Your task to perform on an android device: delete the emails in spam in the gmail app Image 0: 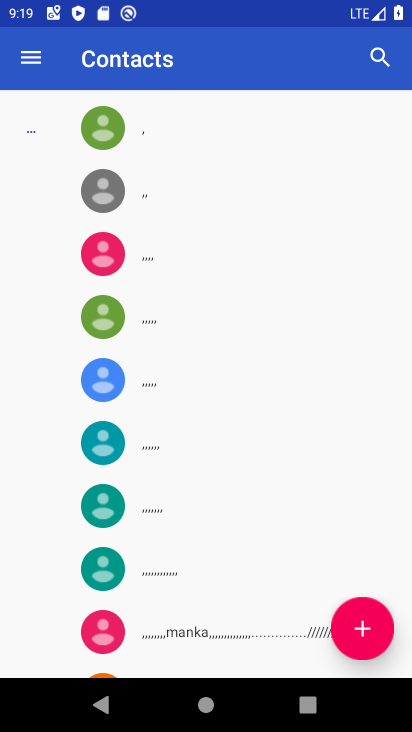
Step 0: press home button
Your task to perform on an android device: delete the emails in spam in the gmail app Image 1: 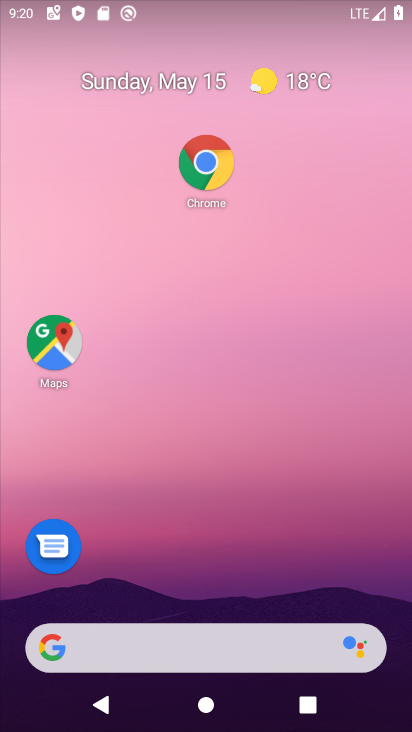
Step 1: drag from (245, 453) to (269, 235)
Your task to perform on an android device: delete the emails in spam in the gmail app Image 2: 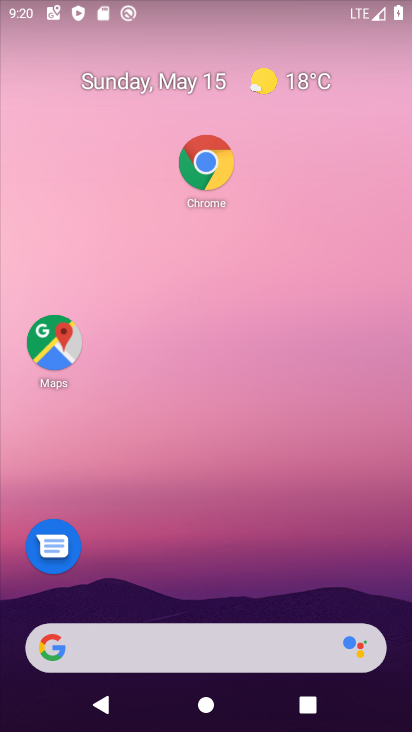
Step 2: drag from (251, 569) to (249, 195)
Your task to perform on an android device: delete the emails in spam in the gmail app Image 3: 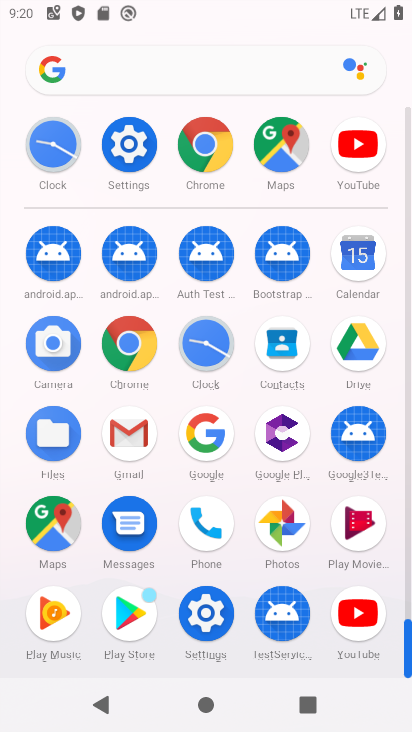
Step 3: click (121, 417)
Your task to perform on an android device: delete the emails in spam in the gmail app Image 4: 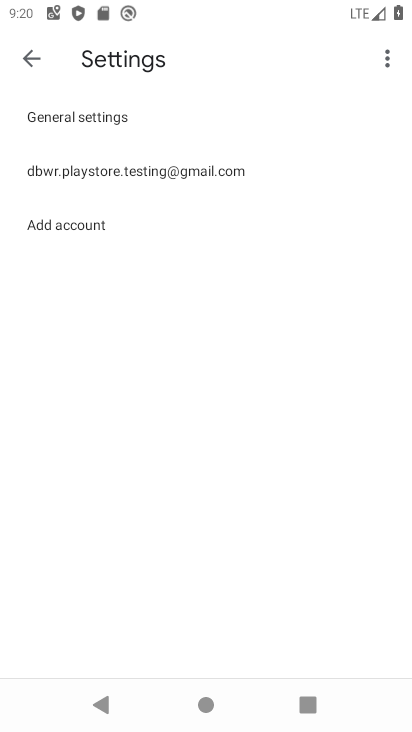
Step 4: click (122, 169)
Your task to perform on an android device: delete the emails in spam in the gmail app Image 5: 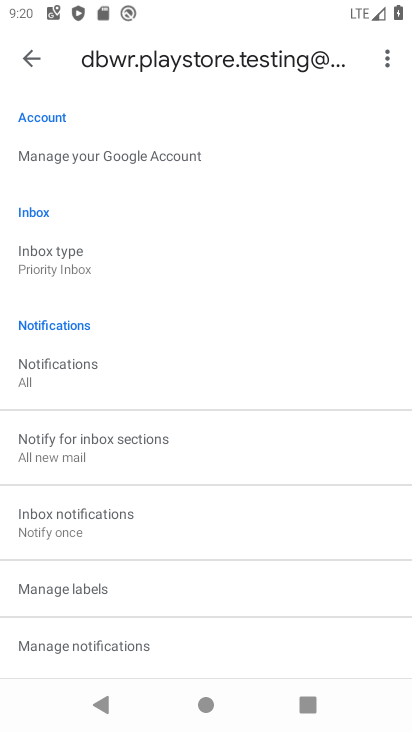
Step 5: drag from (224, 564) to (182, 451)
Your task to perform on an android device: delete the emails in spam in the gmail app Image 6: 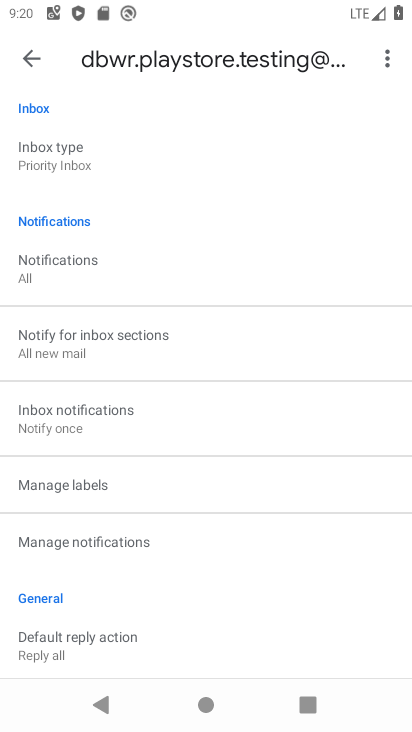
Step 6: click (19, 60)
Your task to perform on an android device: delete the emails in spam in the gmail app Image 7: 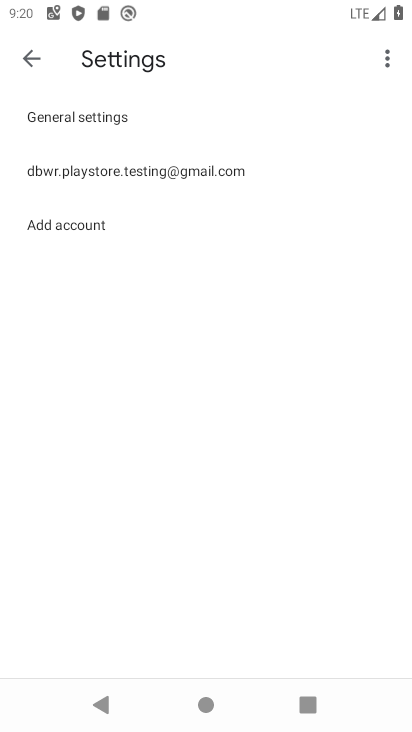
Step 7: click (46, 56)
Your task to perform on an android device: delete the emails in spam in the gmail app Image 8: 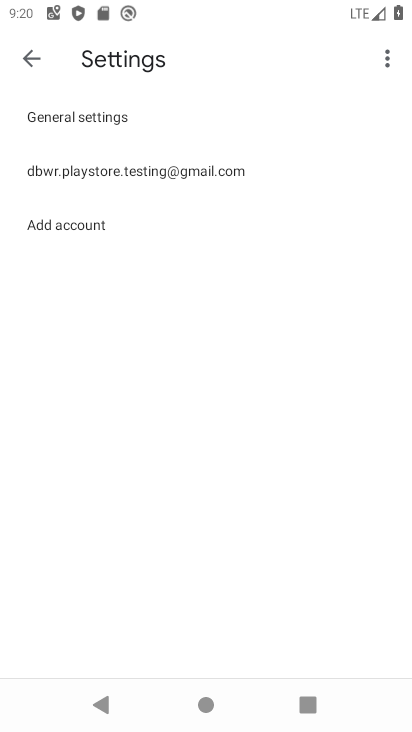
Step 8: click (29, 64)
Your task to perform on an android device: delete the emails in spam in the gmail app Image 9: 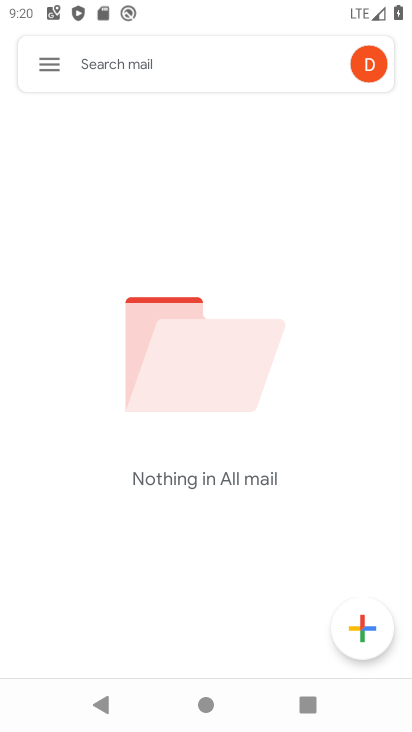
Step 9: click (41, 60)
Your task to perform on an android device: delete the emails in spam in the gmail app Image 10: 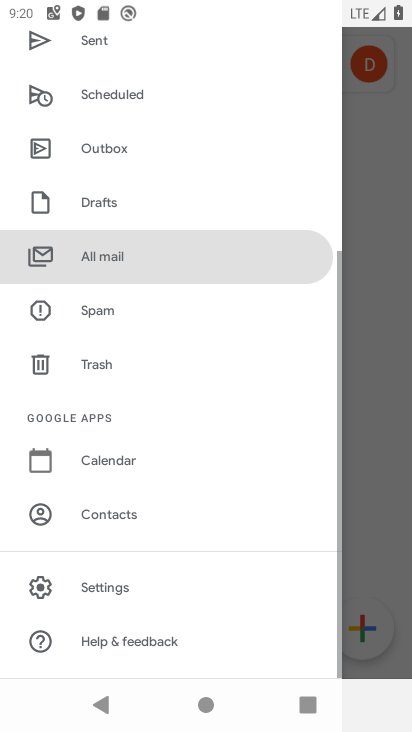
Step 10: click (102, 317)
Your task to perform on an android device: delete the emails in spam in the gmail app Image 11: 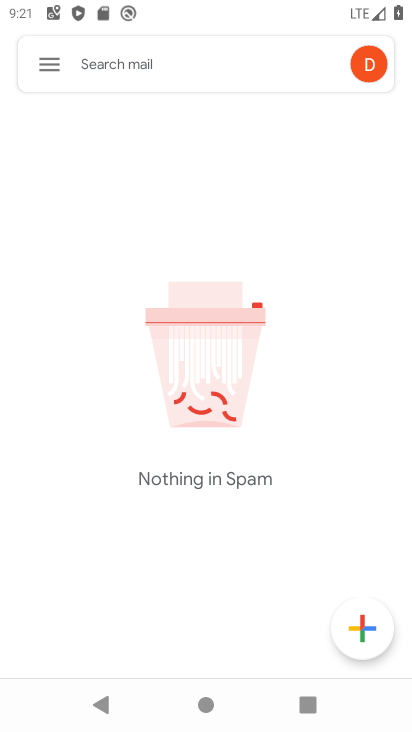
Step 11: task complete